Your task to perform on an android device: change alarm snooze length Image 0: 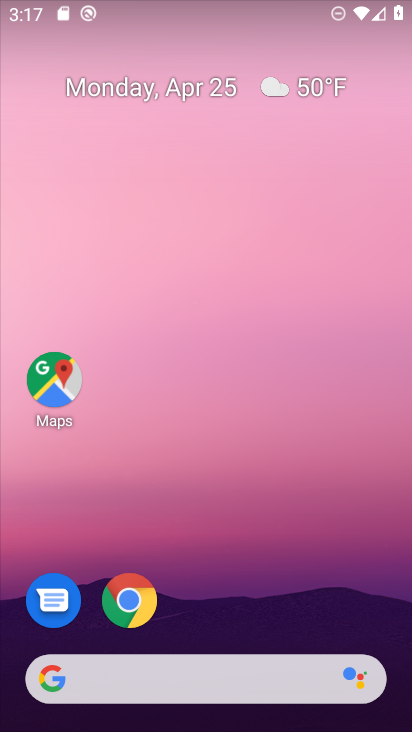
Step 0: drag from (198, 618) to (205, 84)
Your task to perform on an android device: change alarm snooze length Image 1: 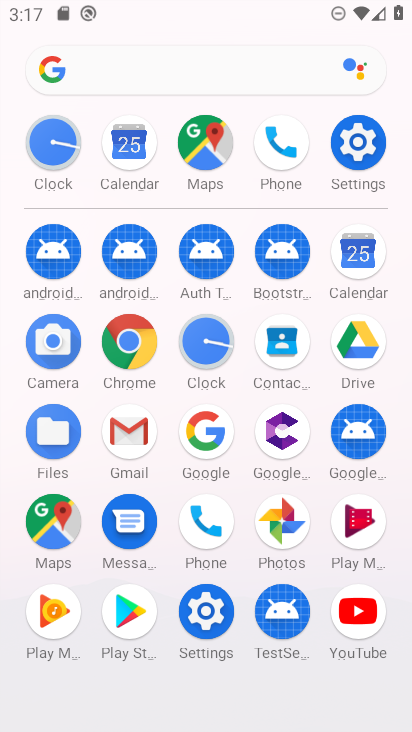
Step 1: click (212, 349)
Your task to perform on an android device: change alarm snooze length Image 2: 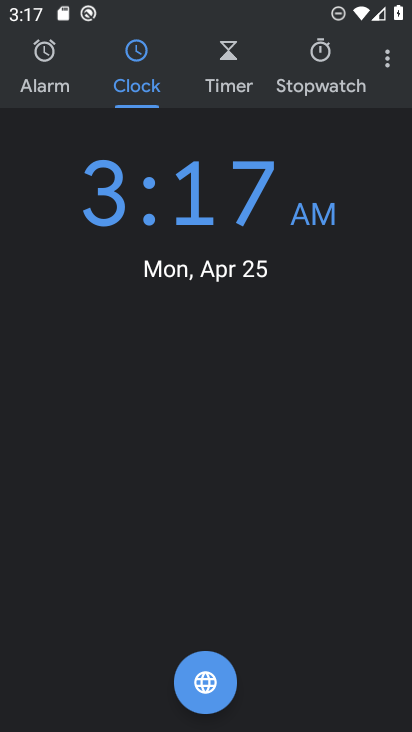
Step 2: click (385, 80)
Your task to perform on an android device: change alarm snooze length Image 3: 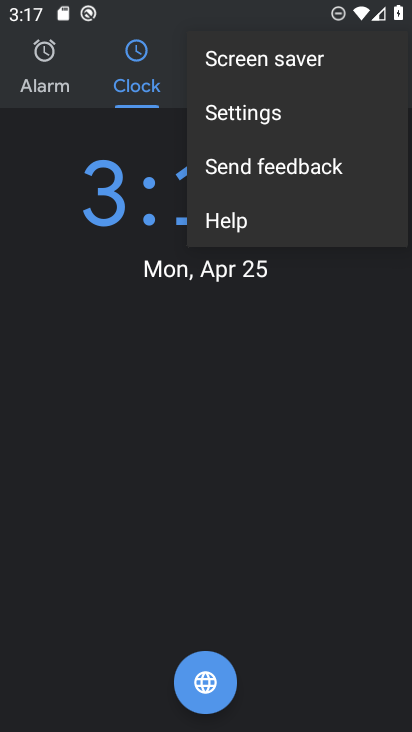
Step 3: click (243, 123)
Your task to perform on an android device: change alarm snooze length Image 4: 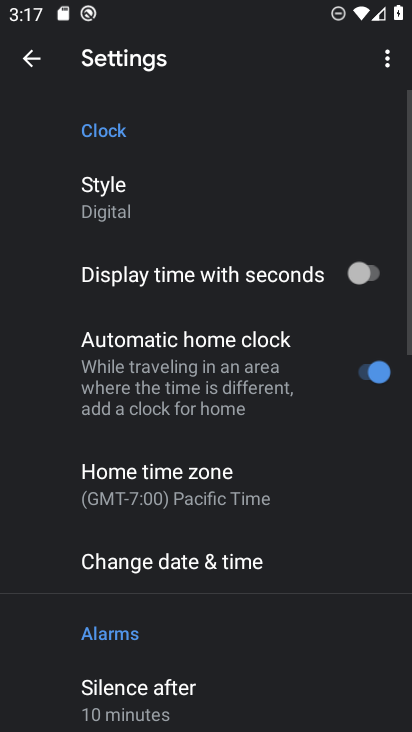
Step 4: drag from (259, 540) to (253, 104)
Your task to perform on an android device: change alarm snooze length Image 5: 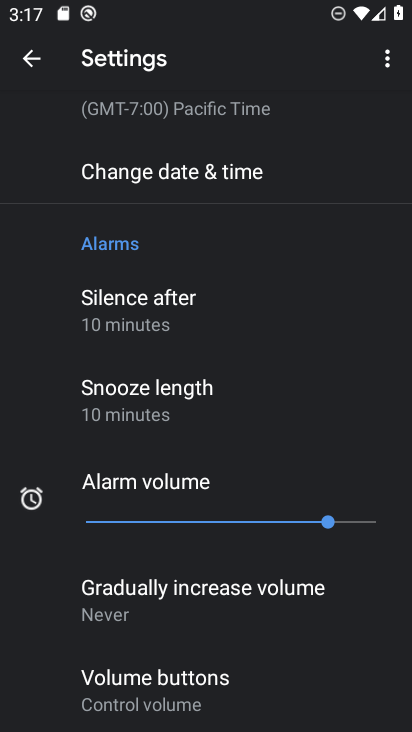
Step 5: click (198, 408)
Your task to perform on an android device: change alarm snooze length Image 6: 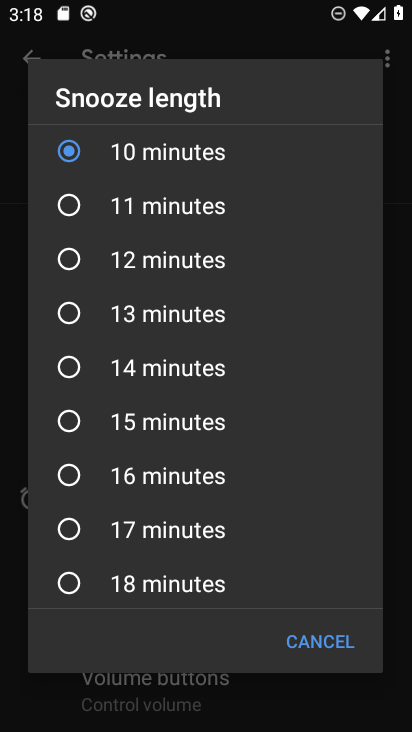
Step 6: click (111, 190)
Your task to perform on an android device: change alarm snooze length Image 7: 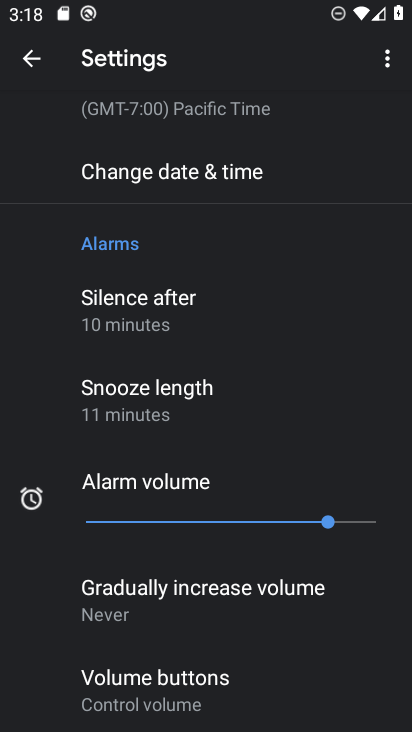
Step 7: task complete